Your task to perform on an android device: When is my next meeting? Image 0: 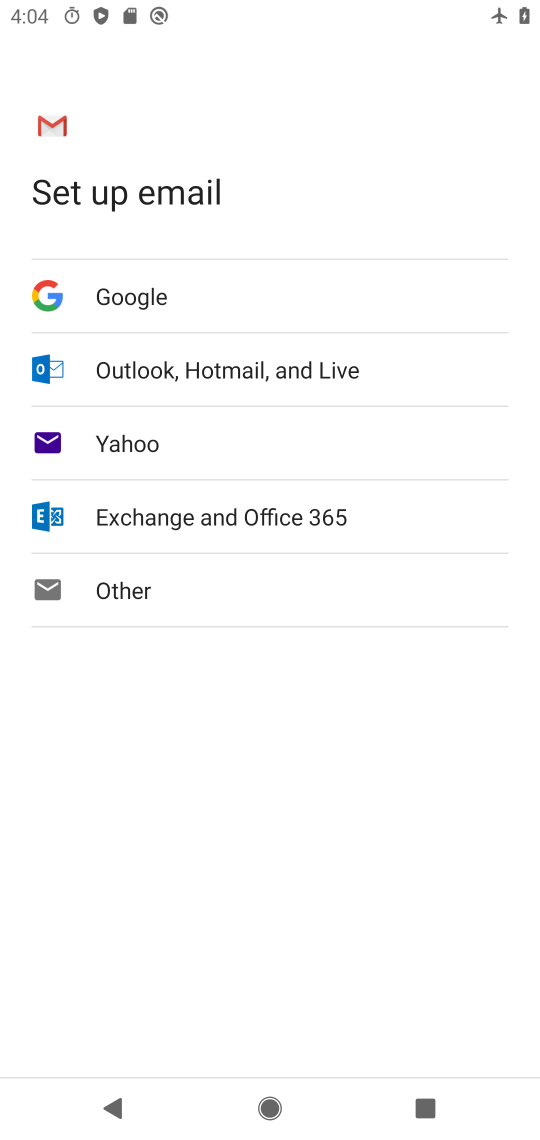
Step 0: press home button
Your task to perform on an android device: When is my next meeting? Image 1: 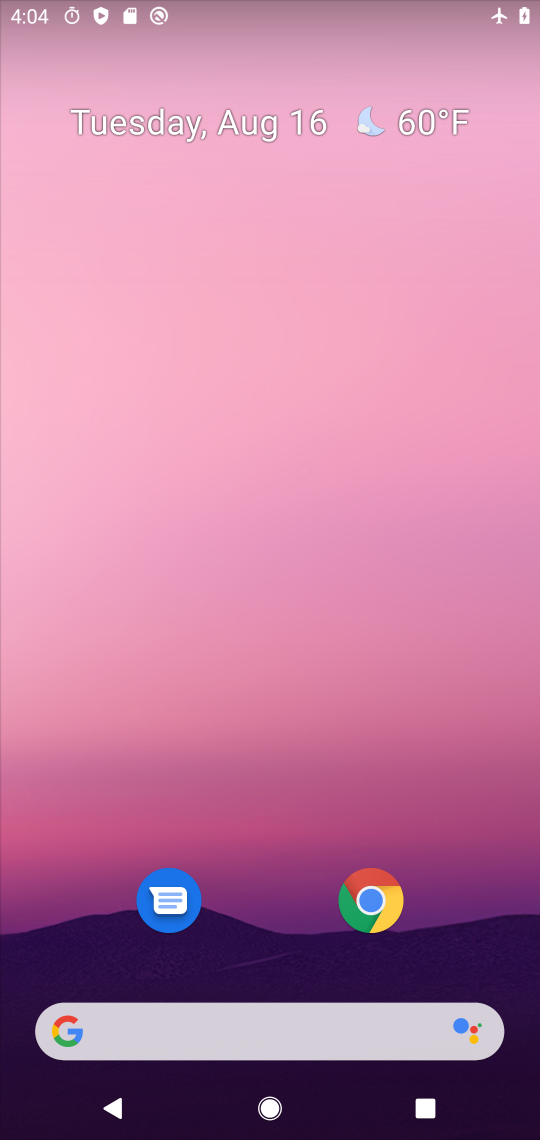
Step 1: drag from (307, 832) to (241, 123)
Your task to perform on an android device: When is my next meeting? Image 2: 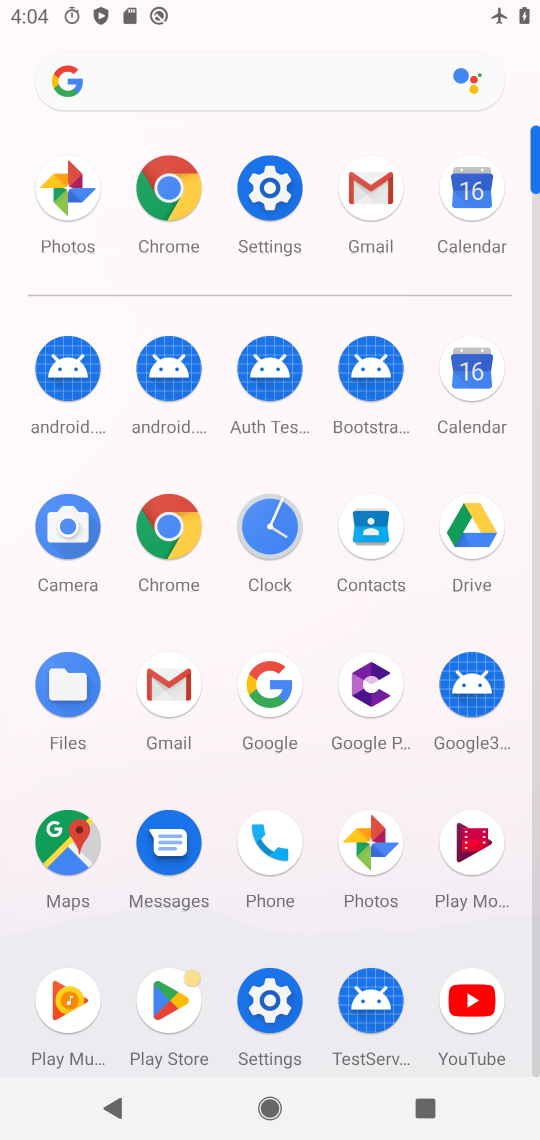
Step 2: click (470, 383)
Your task to perform on an android device: When is my next meeting? Image 3: 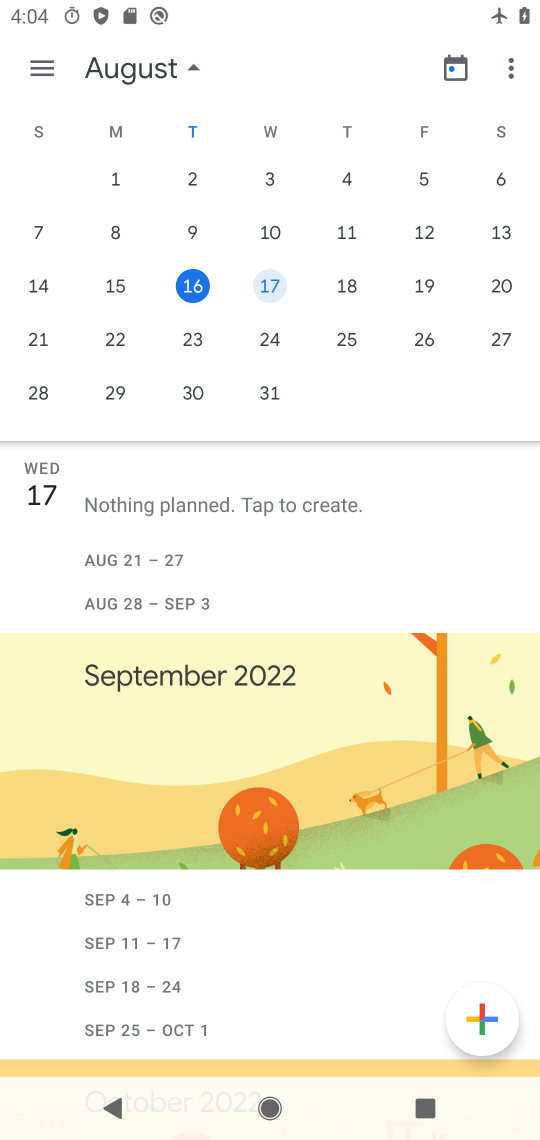
Step 3: click (268, 284)
Your task to perform on an android device: When is my next meeting? Image 4: 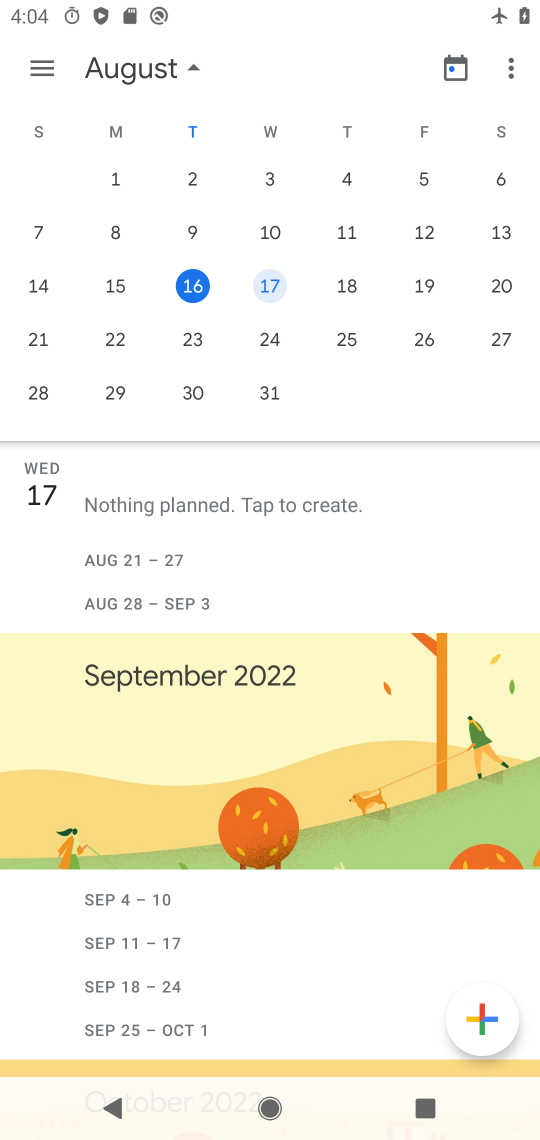
Step 4: click (273, 276)
Your task to perform on an android device: When is my next meeting? Image 5: 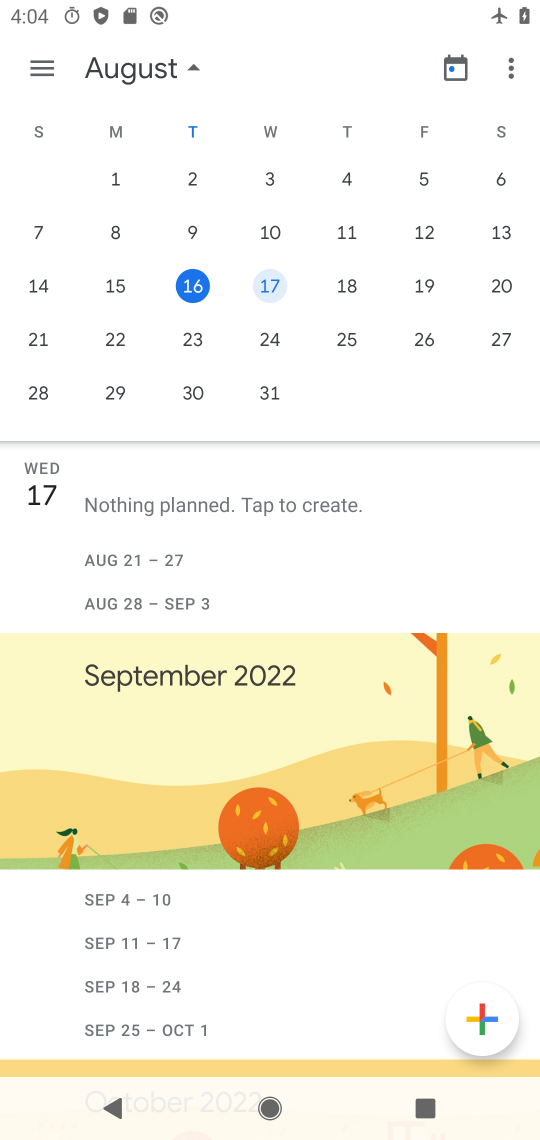
Step 5: task complete